Your task to perform on an android device: turn vacation reply on in the gmail app Image 0: 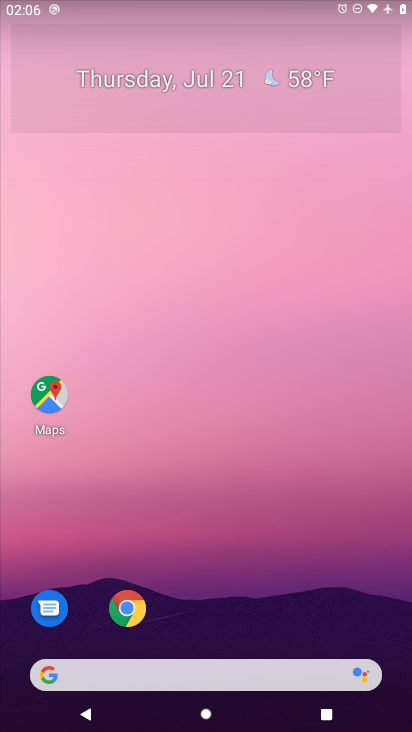
Step 0: drag from (232, 586) to (251, 2)
Your task to perform on an android device: turn vacation reply on in the gmail app Image 1: 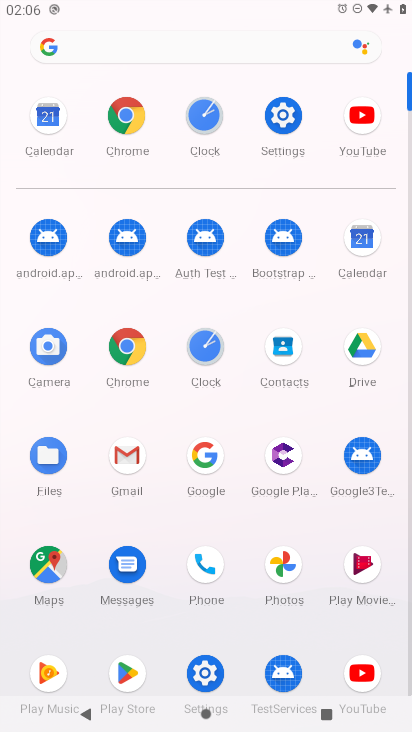
Step 1: click (118, 469)
Your task to perform on an android device: turn vacation reply on in the gmail app Image 2: 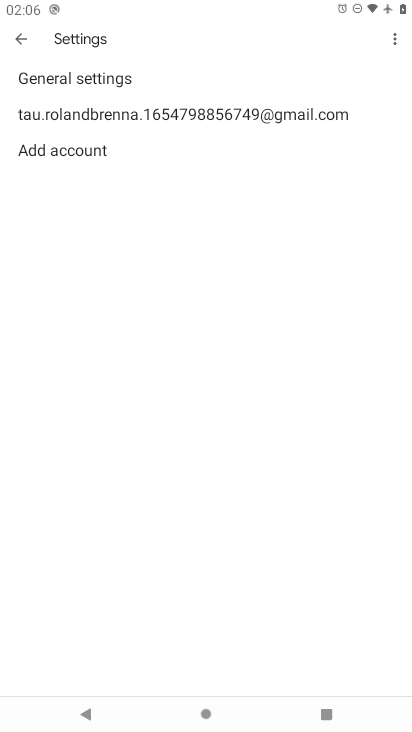
Step 2: click (97, 115)
Your task to perform on an android device: turn vacation reply on in the gmail app Image 3: 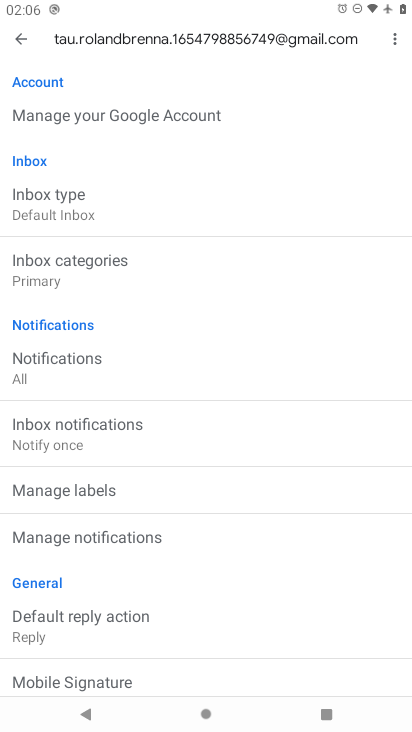
Step 3: drag from (317, 631) to (263, 61)
Your task to perform on an android device: turn vacation reply on in the gmail app Image 4: 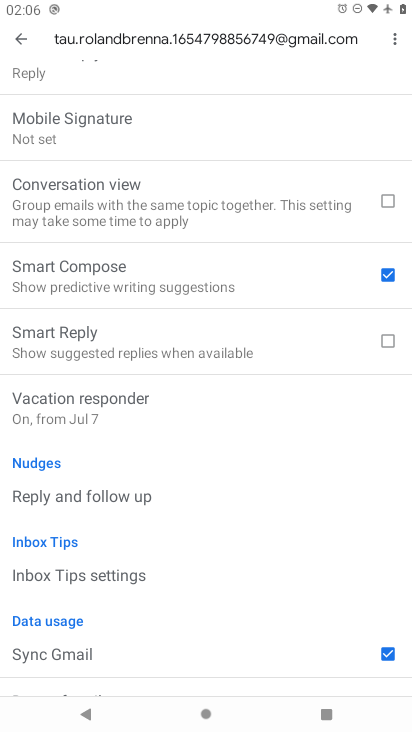
Step 4: click (64, 411)
Your task to perform on an android device: turn vacation reply on in the gmail app Image 5: 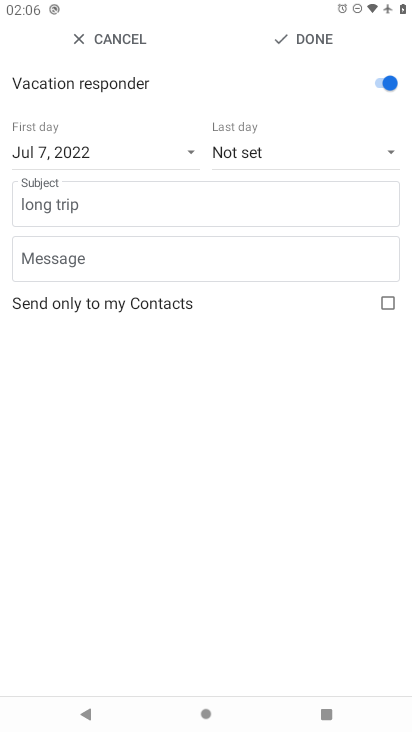
Step 5: task complete